Your task to perform on an android device: remove spam from my inbox in the gmail app Image 0: 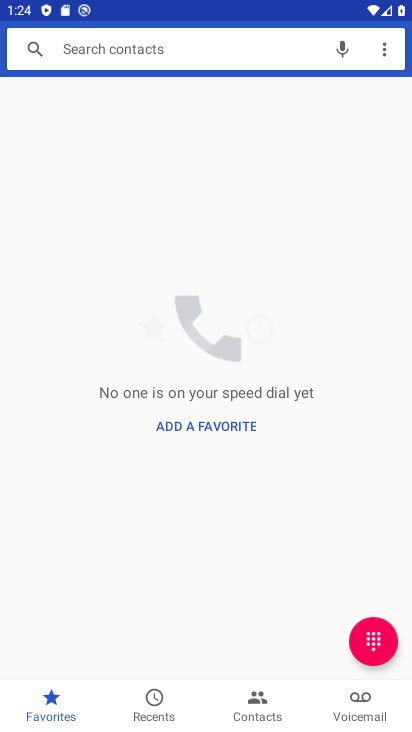
Step 0: press home button
Your task to perform on an android device: remove spam from my inbox in the gmail app Image 1: 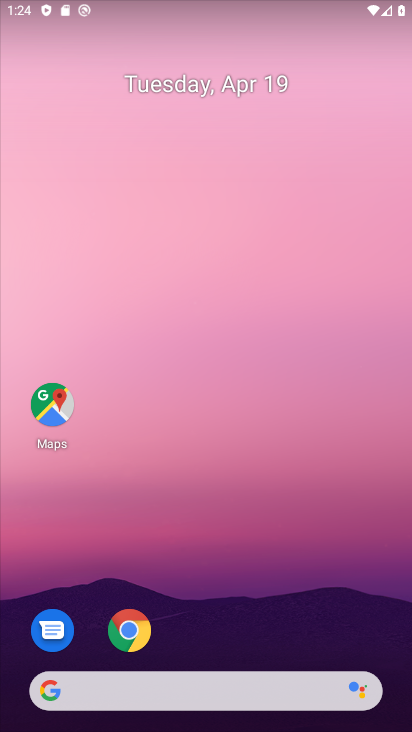
Step 1: drag from (221, 602) to (183, 111)
Your task to perform on an android device: remove spam from my inbox in the gmail app Image 2: 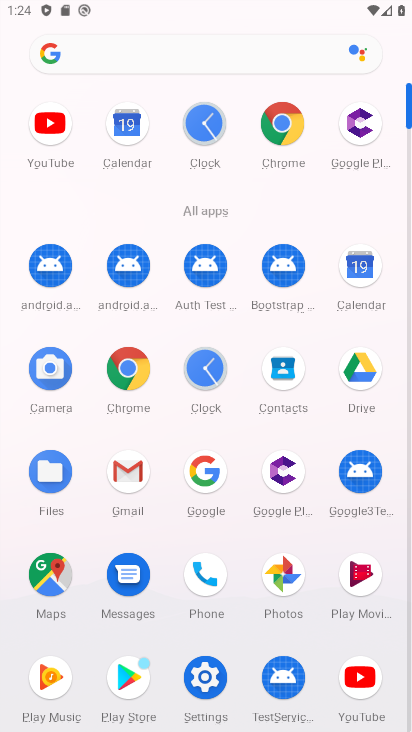
Step 2: click (126, 470)
Your task to perform on an android device: remove spam from my inbox in the gmail app Image 3: 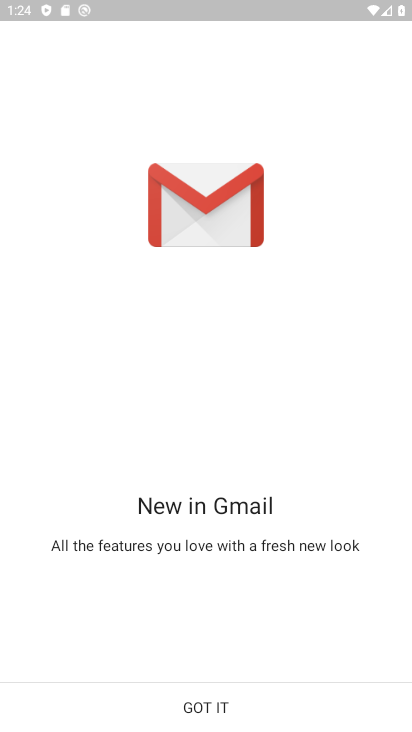
Step 3: click (216, 710)
Your task to perform on an android device: remove spam from my inbox in the gmail app Image 4: 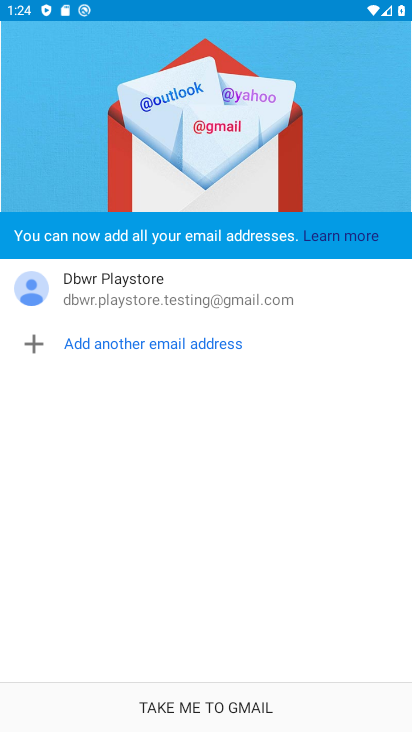
Step 4: click (216, 705)
Your task to perform on an android device: remove spam from my inbox in the gmail app Image 5: 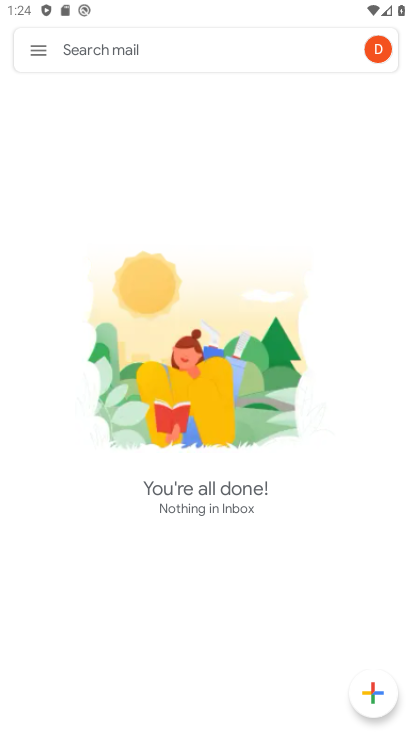
Step 5: click (35, 45)
Your task to perform on an android device: remove spam from my inbox in the gmail app Image 6: 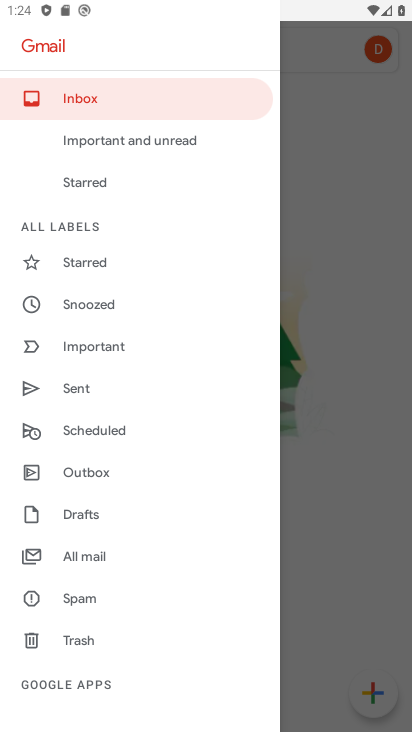
Step 6: click (96, 599)
Your task to perform on an android device: remove spam from my inbox in the gmail app Image 7: 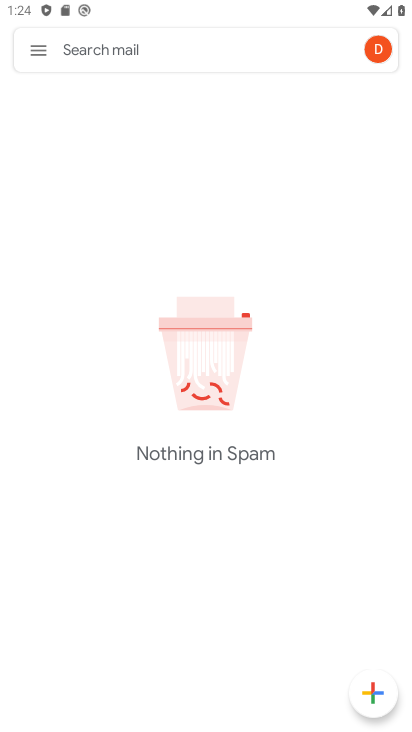
Step 7: task complete